Your task to perform on an android device: Clear the cart on costco. Image 0: 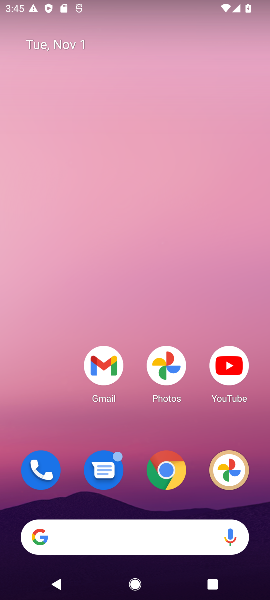
Step 0: click (169, 475)
Your task to perform on an android device: Clear the cart on costco. Image 1: 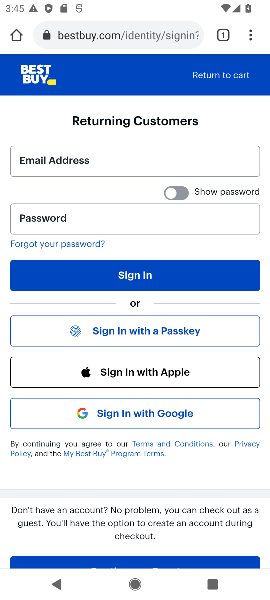
Step 1: click (123, 35)
Your task to perform on an android device: Clear the cart on costco. Image 2: 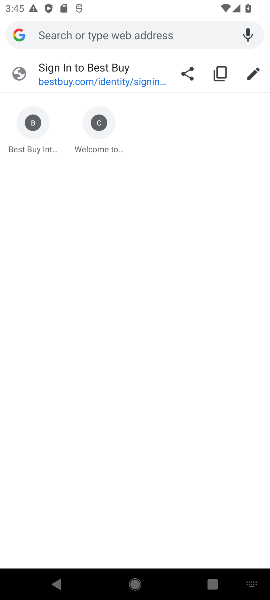
Step 2: type "costco"
Your task to perform on an android device: Clear the cart on costco. Image 3: 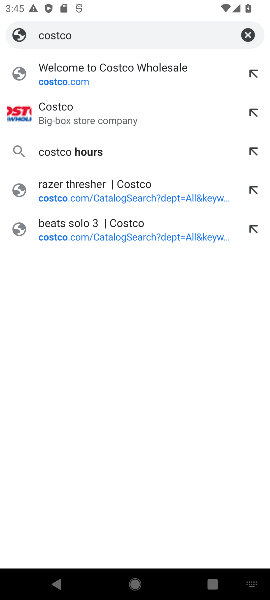
Step 3: press enter
Your task to perform on an android device: Clear the cart on costco. Image 4: 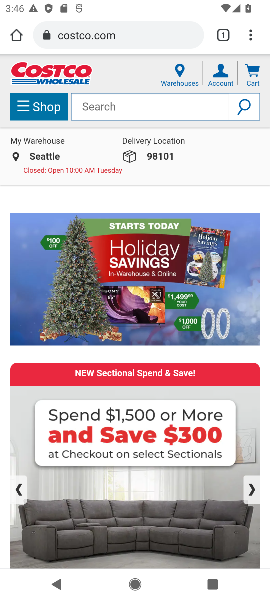
Step 4: click (248, 75)
Your task to perform on an android device: Clear the cart on costco. Image 5: 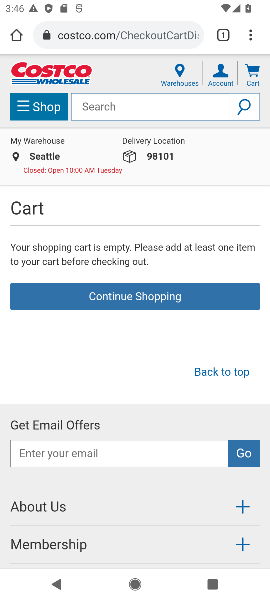
Step 5: task complete